Your task to perform on an android device: Open Google Maps and go to "Timeline" Image 0: 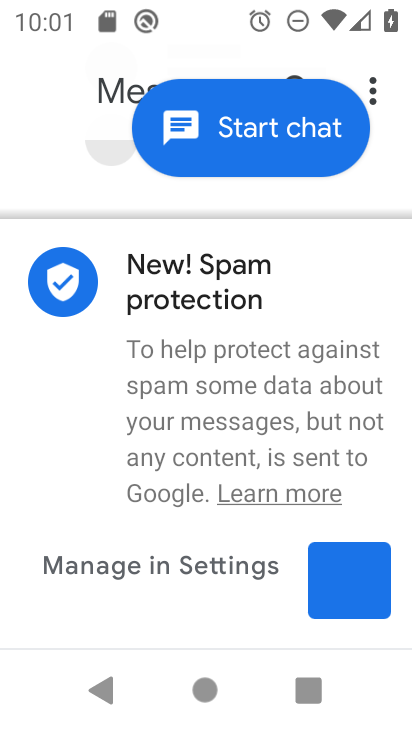
Step 0: press home button
Your task to perform on an android device: Open Google Maps and go to "Timeline" Image 1: 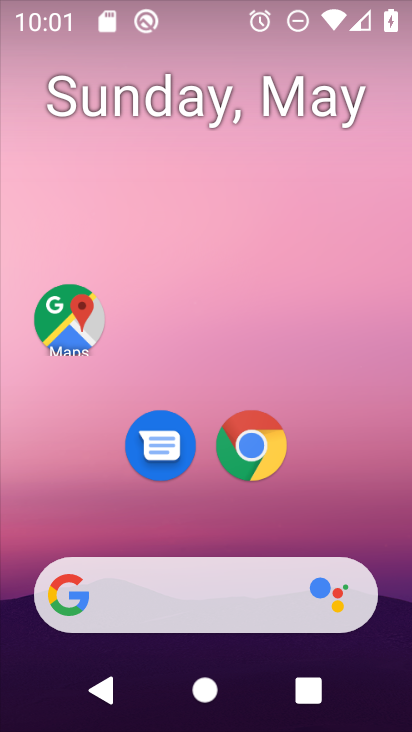
Step 1: drag from (285, 514) to (329, 202)
Your task to perform on an android device: Open Google Maps and go to "Timeline" Image 2: 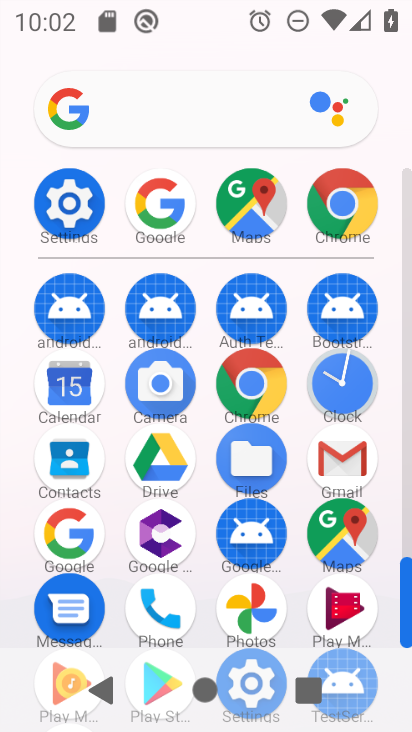
Step 2: click (346, 540)
Your task to perform on an android device: Open Google Maps and go to "Timeline" Image 3: 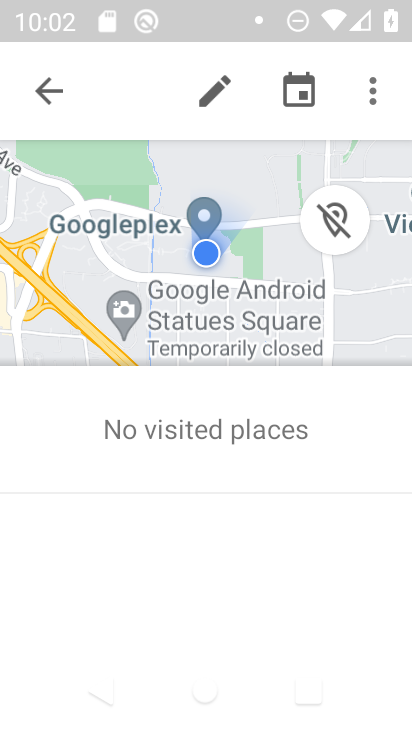
Step 3: task complete